Your task to perform on an android device: turn off smart reply in the gmail app Image 0: 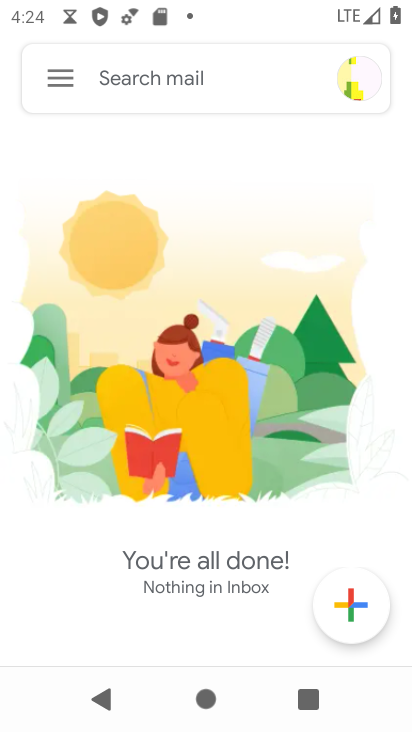
Step 0: press home button
Your task to perform on an android device: turn off smart reply in the gmail app Image 1: 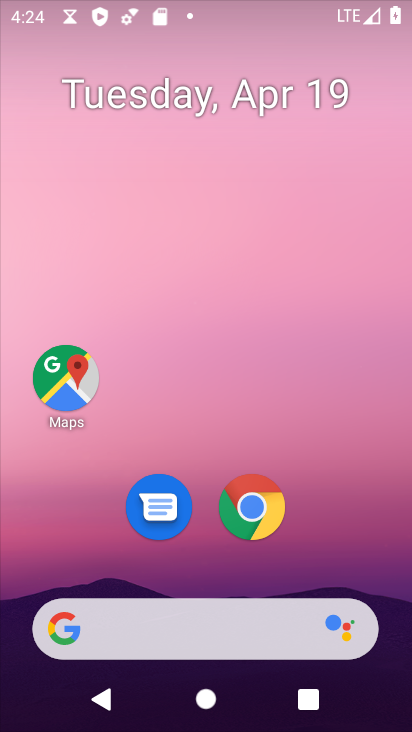
Step 1: drag from (298, 520) to (372, 35)
Your task to perform on an android device: turn off smart reply in the gmail app Image 2: 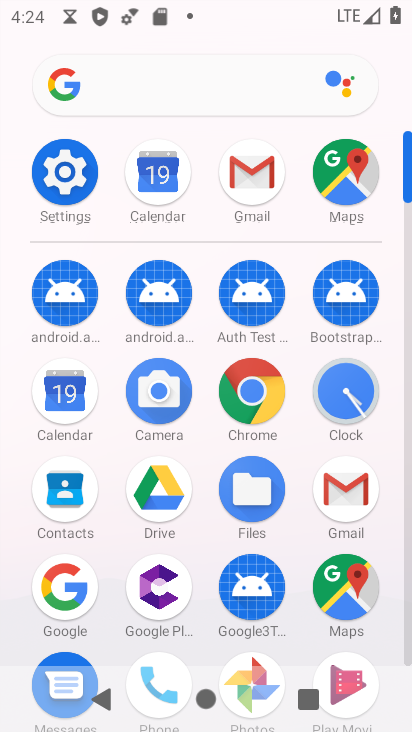
Step 2: click (343, 489)
Your task to perform on an android device: turn off smart reply in the gmail app Image 3: 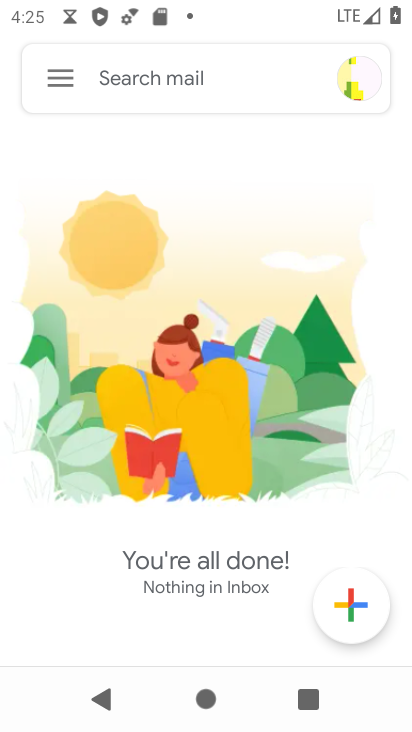
Step 3: click (68, 86)
Your task to perform on an android device: turn off smart reply in the gmail app Image 4: 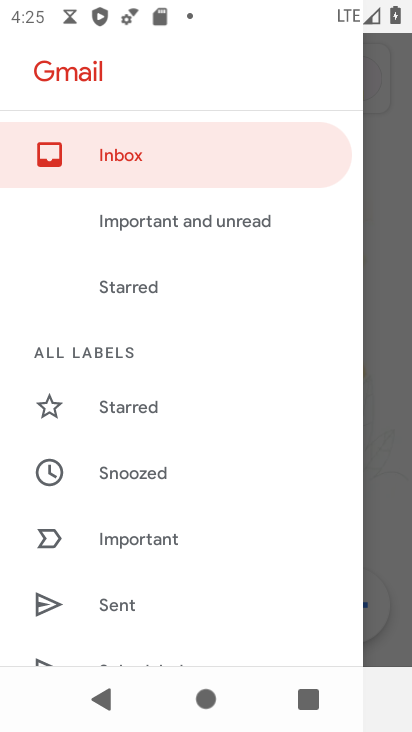
Step 4: drag from (160, 597) to (250, 381)
Your task to perform on an android device: turn off smart reply in the gmail app Image 5: 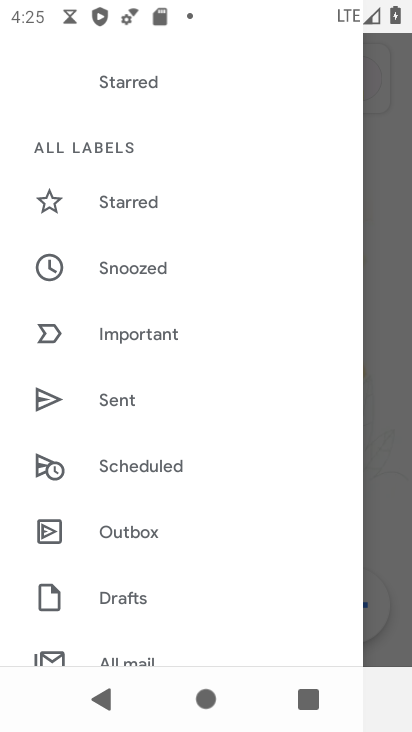
Step 5: drag from (184, 574) to (281, 347)
Your task to perform on an android device: turn off smart reply in the gmail app Image 6: 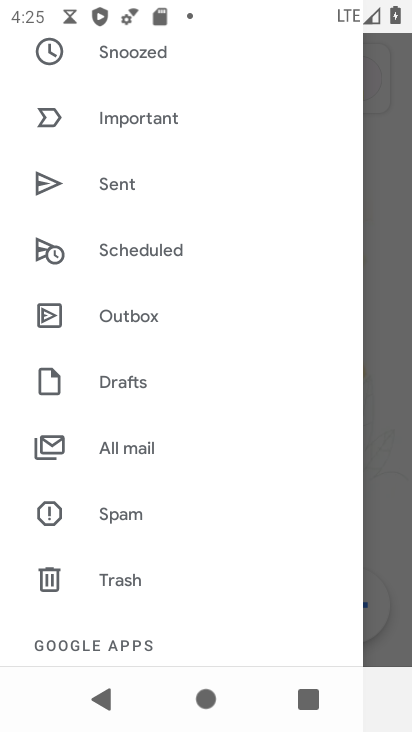
Step 6: drag from (152, 574) to (245, 384)
Your task to perform on an android device: turn off smart reply in the gmail app Image 7: 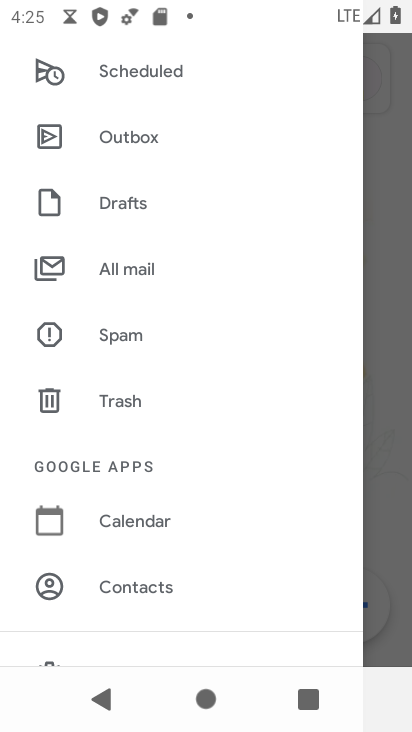
Step 7: drag from (179, 584) to (278, 374)
Your task to perform on an android device: turn off smart reply in the gmail app Image 8: 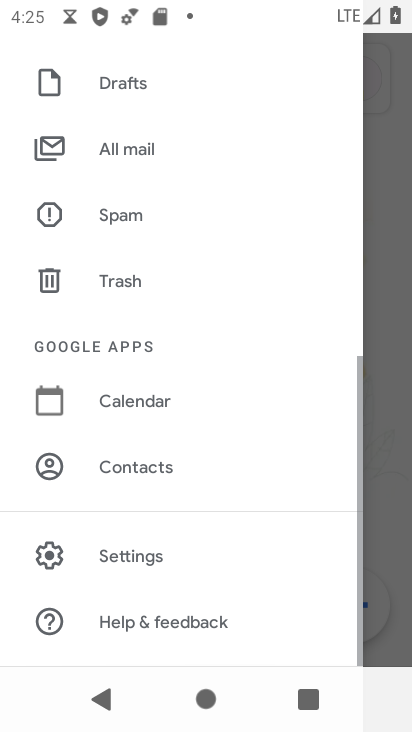
Step 8: click (185, 545)
Your task to perform on an android device: turn off smart reply in the gmail app Image 9: 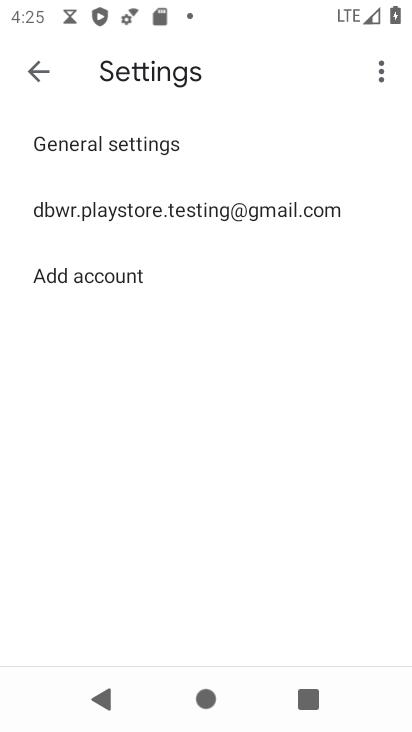
Step 9: click (314, 215)
Your task to perform on an android device: turn off smart reply in the gmail app Image 10: 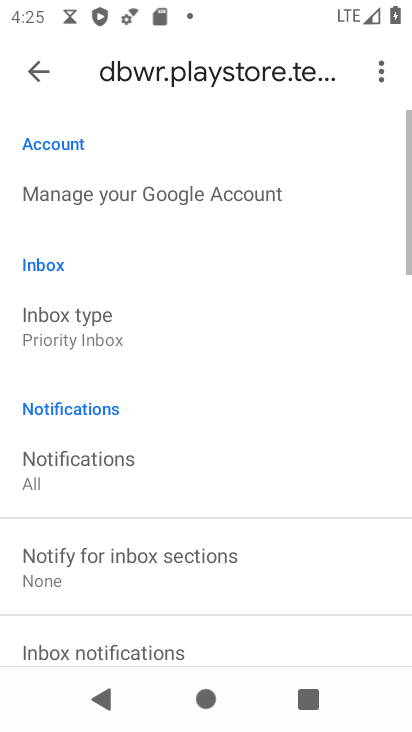
Step 10: drag from (230, 436) to (312, 264)
Your task to perform on an android device: turn off smart reply in the gmail app Image 11: 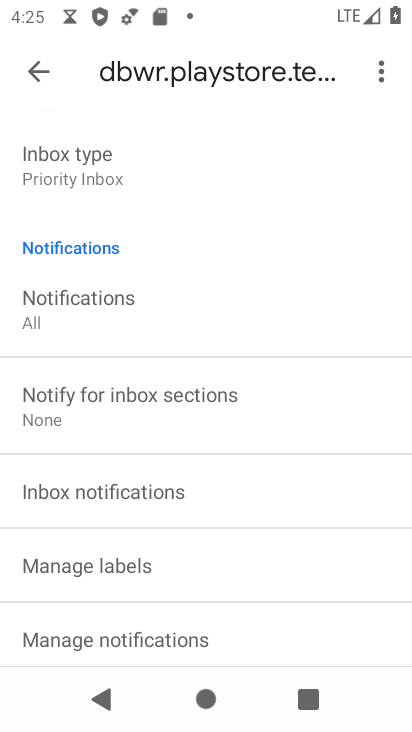
Step 11: drag from (206, 481) to (278, 312)
Your task to perform on an android device: turn off smart reply in the gmail app Image 12: 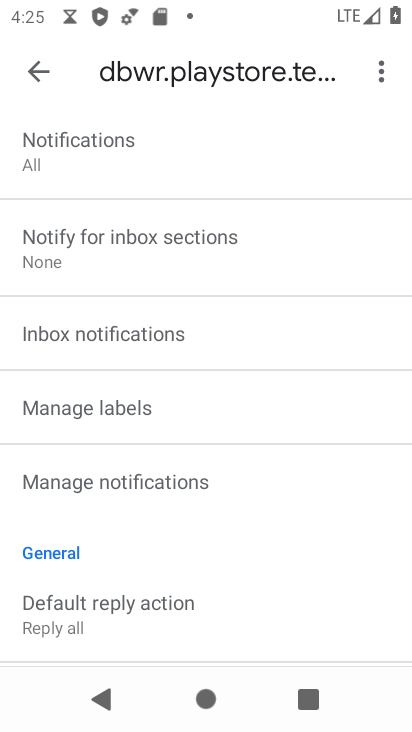
Step 12: drag from (229, 511) to (295, 327)
Your task to perform on an android device: turn off smart reply in the gmail app Image 13: 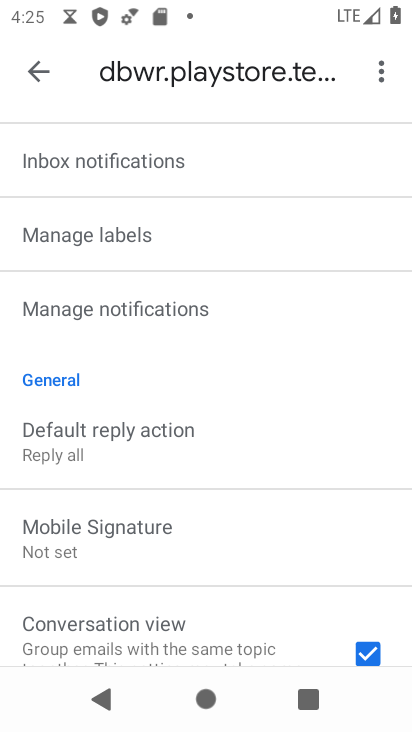
Step 13: drag from (246, 526) to (302, 400)
Your task to perform on an android device: turn off smart reply in the gmail app Image 14: 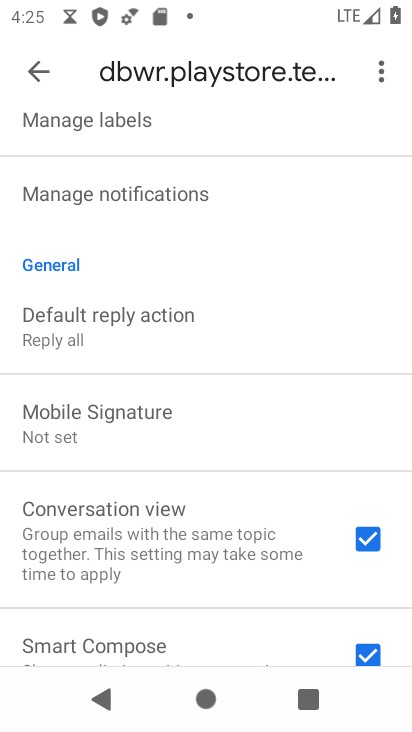
Step 14: drag from (242, 572) to (310, 378)
Your task to perform on an android device: turn off smart reply in the gmail app Image 15: 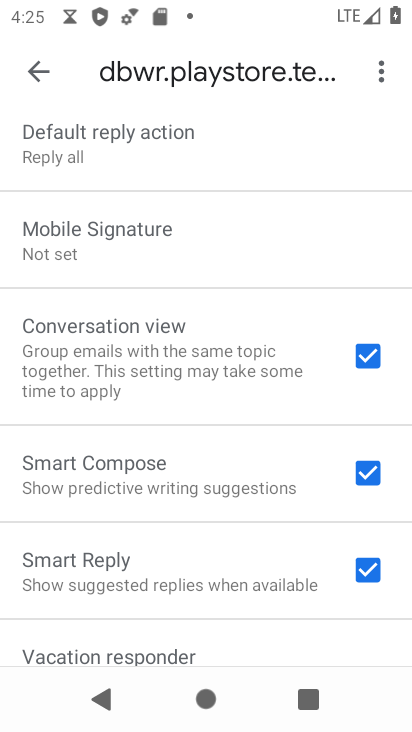
Step 15: click (258, 566)
Your task to perform on an android device: turn off smart reply in the gmail app Image 16: 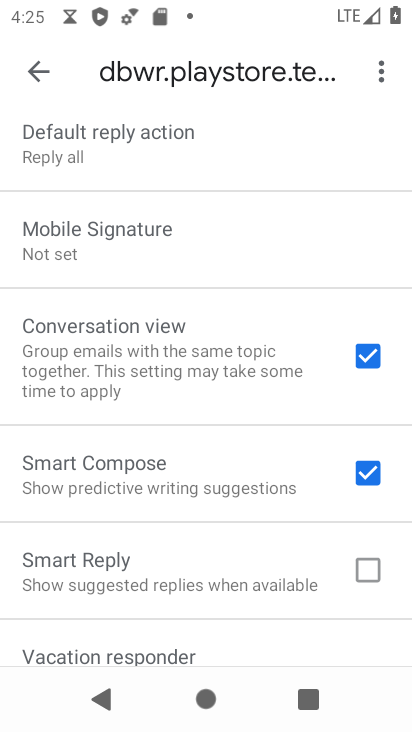
Step 16: task complete